Your task to perform on an android device: check battery use Image 0: 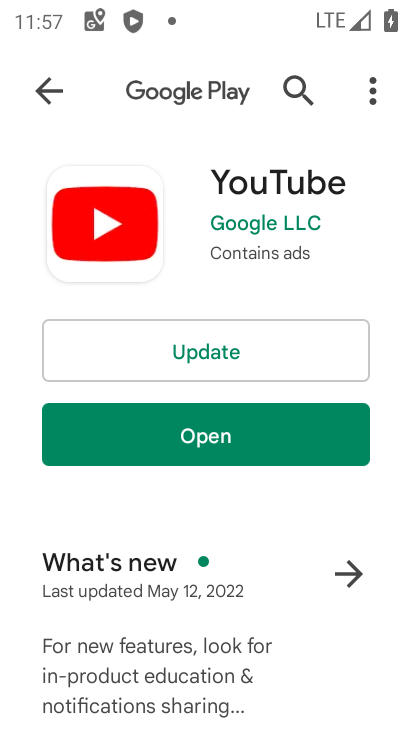
Step 0: press home button
Your task to perform on an android device: check battery use Image 1: 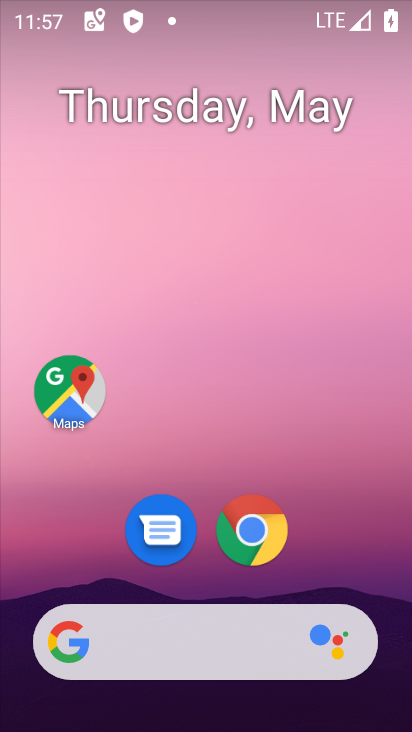
Step 1: drag from (154, 723) to (160, 334)
Your task to perform on an android device: check battery use Image 2: 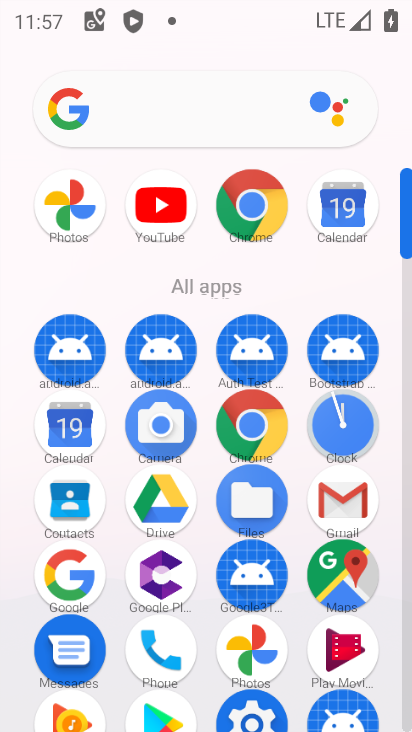
Step 2: drag from (214, 613) to (214, 130)
Your task to perform on an android device: check battery use Image 3: 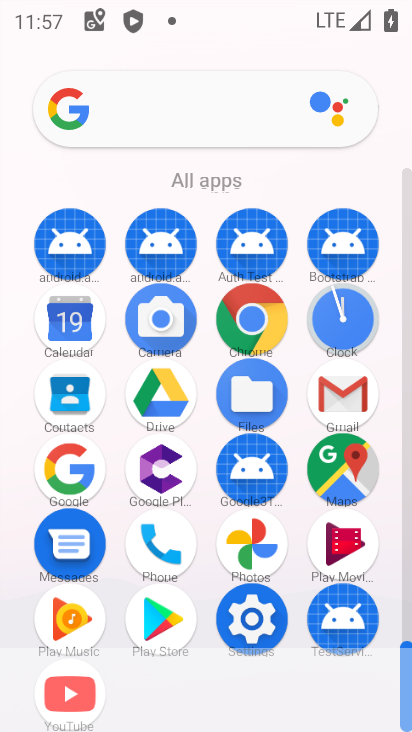
Step 3: click (263, 617)
Your task to perform on an android device: check battery use Image 4: 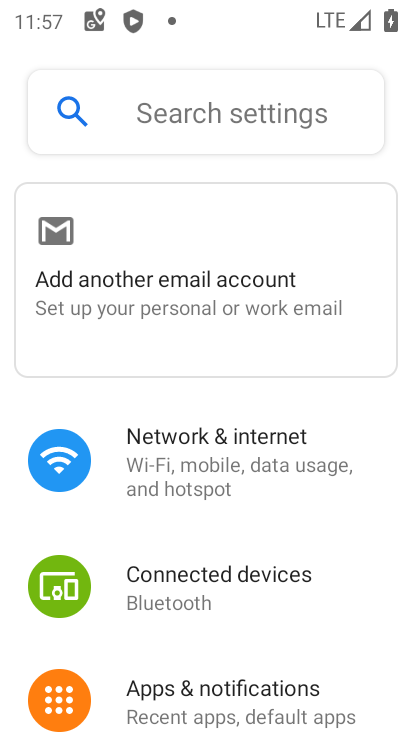
Step 4: drag from (221, 675) to (138, 133)
Your task to perform on an android device: check battery use Image 5: 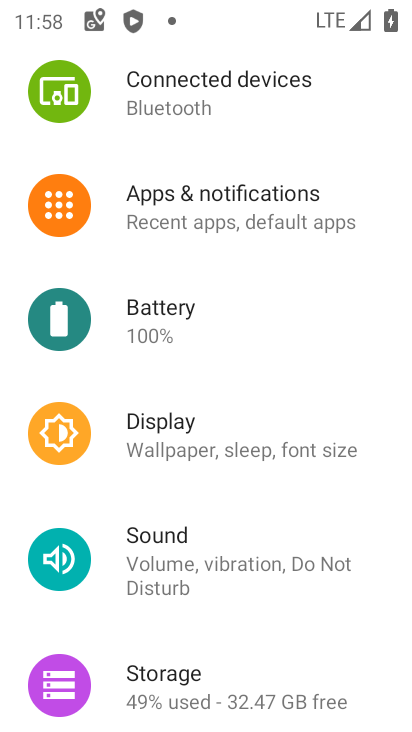
Step 5: click (227, 325)
Your task to perform on an android device: check battery use Image 6: 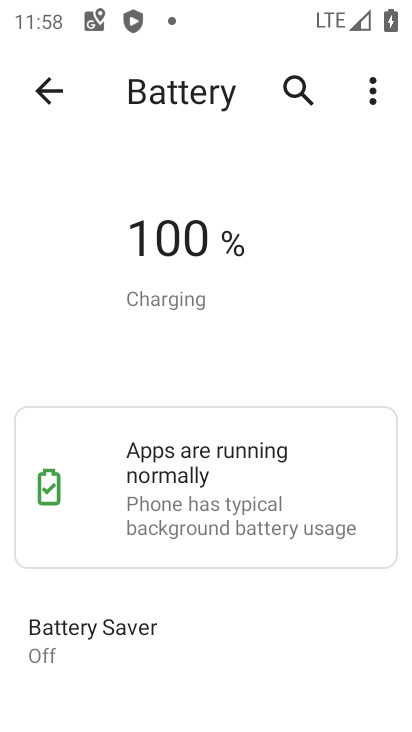
Step 6: click (372, 88)
Your task to perform on an android device: check battery use Image 7: 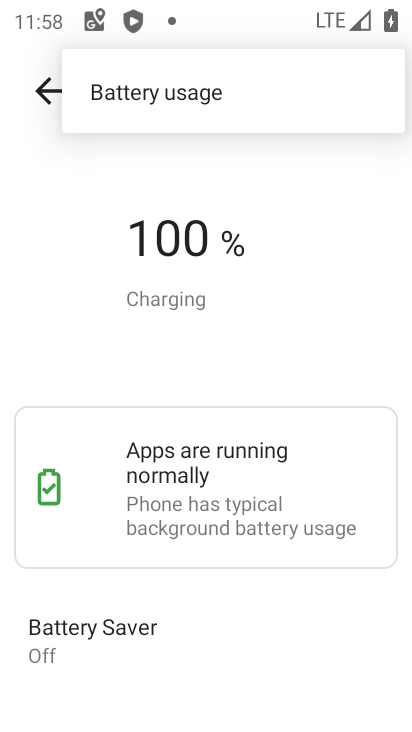
Step 7: click (288, 100)
Your task to perform on an android device: check battery use Image 8: 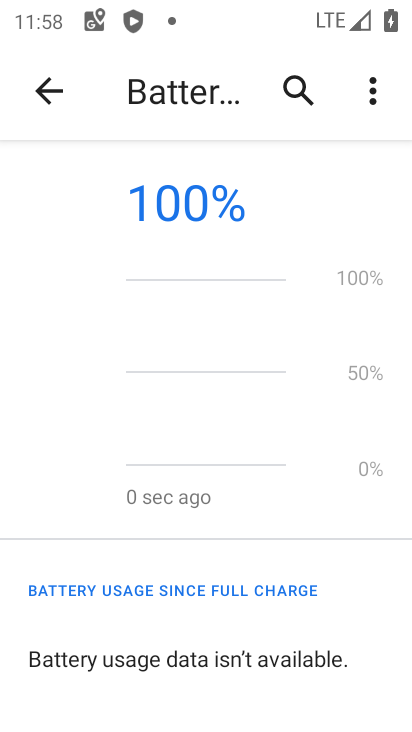
Step 8: task complete